Your task to perform on an android device: Open wifi settings Image 0: 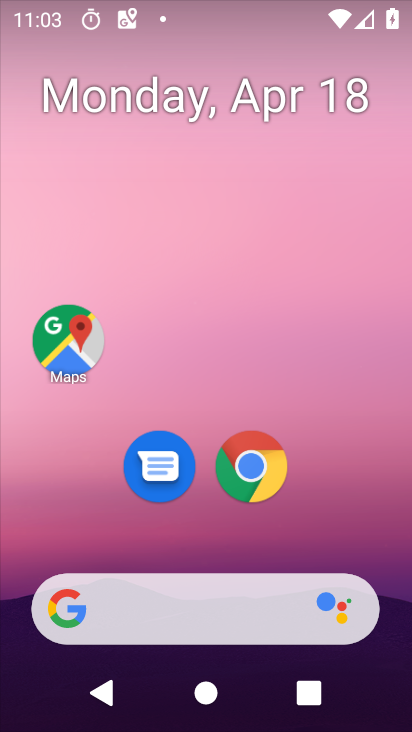
Step 0: drag from (291, 506) to (260, 154)
Your task to perform on an android device: Open wifi settings Image 1: 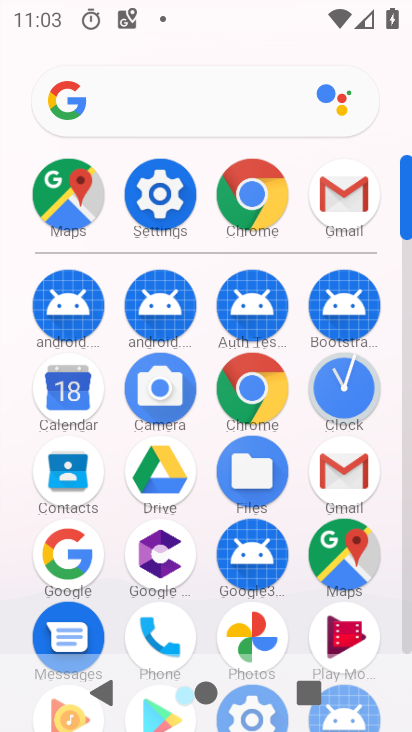
Step 1: click (168, 212)
Your task to perform on an android device: Open wifi settings Image 2: 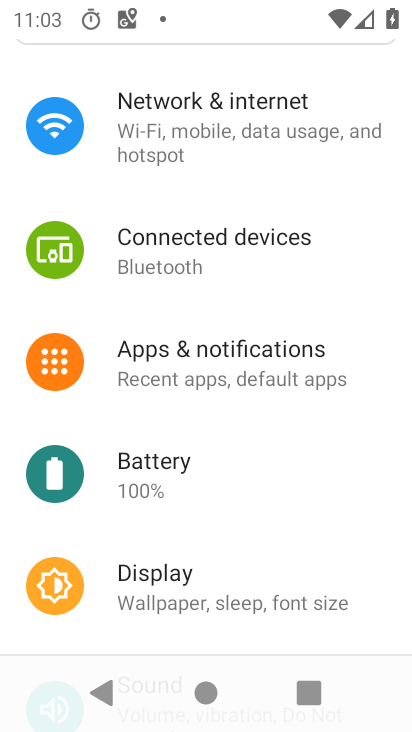
Step 2: drag from (168, 212) to (174, 658)
Your task to perform on an android device: Open wifi settings Image 3: 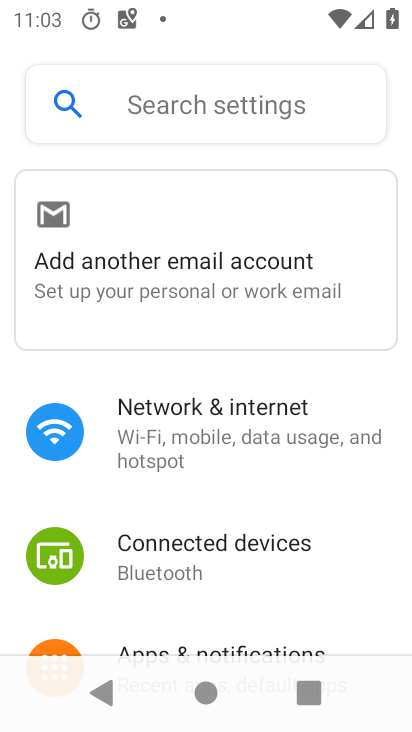
Step 3: click (226, 445)
Your task to perform on an android device: Open wifi settings Image 4: 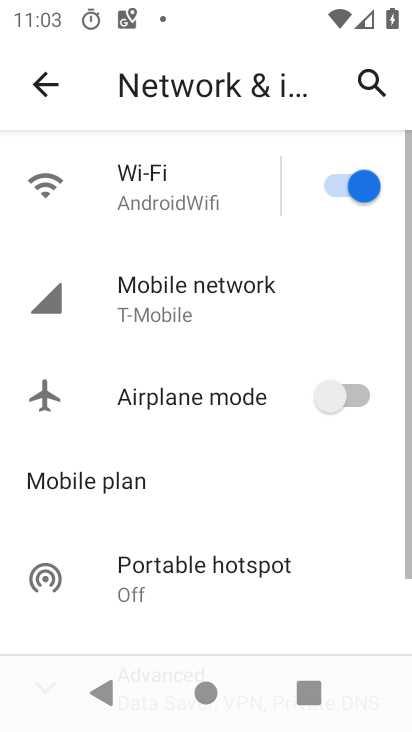
Step 4: click (208, 193)
Your task to perform on an android device: Open wifi settings Image 5: 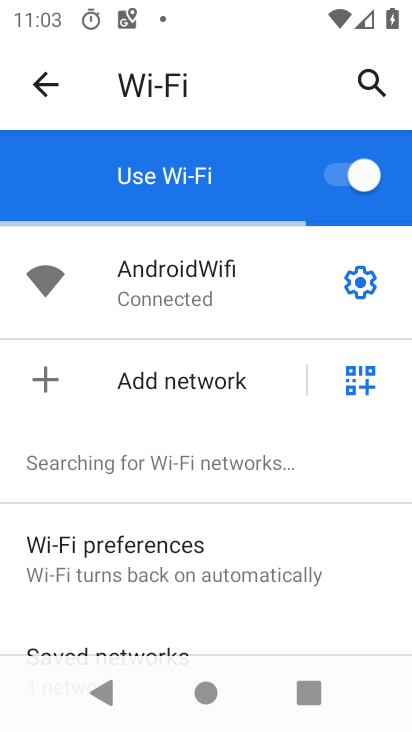
Step 5: task complete